Your task to perform on an android device: find which apps use the phone's location Image 0: 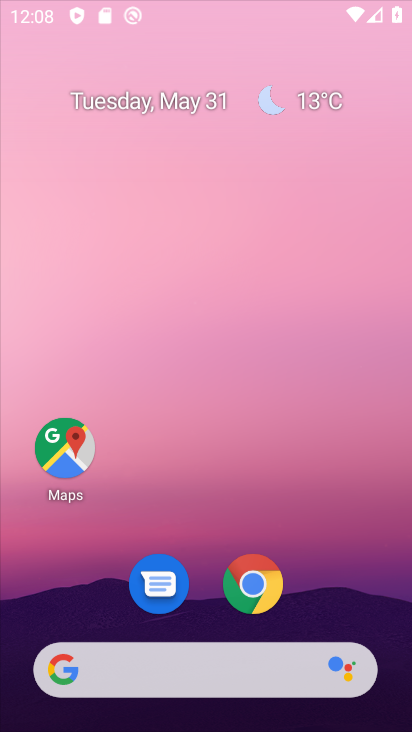
Step 0: click (213, 0)
Your task to perform on an android device: find which apps use the phone's location Image 1: 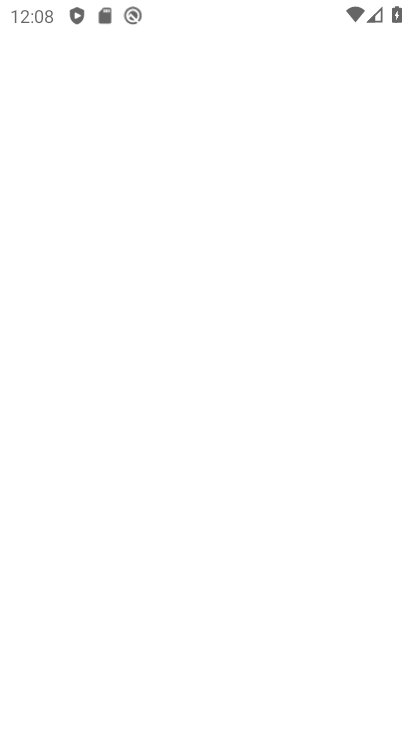
Step 1: press home button
Your task to perform on an android device: find which apps use the phone's location Image 2: 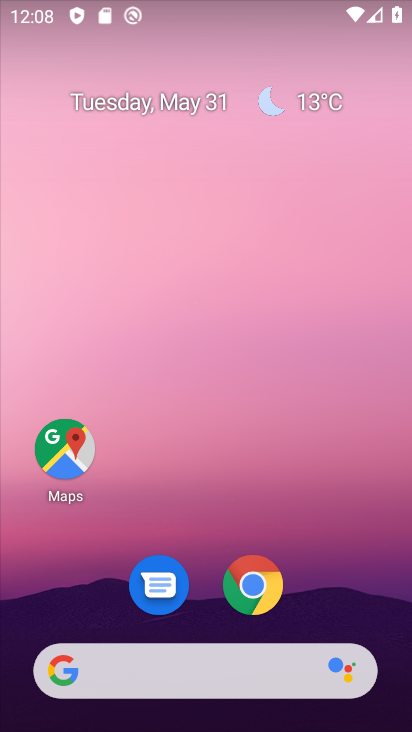
Step 2: drag from (210, 529) to (203, 24)
Your task to perform on an android device: find which apps use the phone's location Image 3: 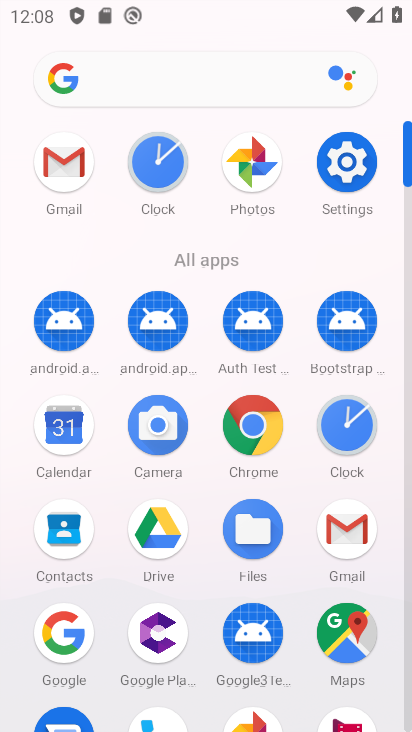
Step 3: click (348, 165)
Your task to perform on an android device: find which apps use the phone's location Image 4: 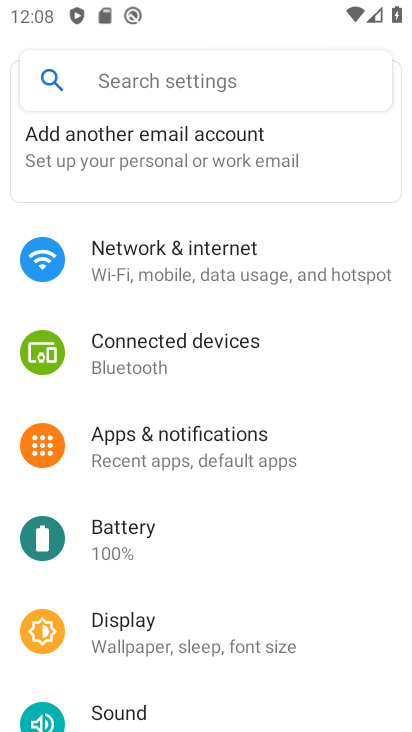
Step 4: drag from (229, 546) to (253, 147)
Your task to perform on an android device: find which apps use the phone's location Image 5: 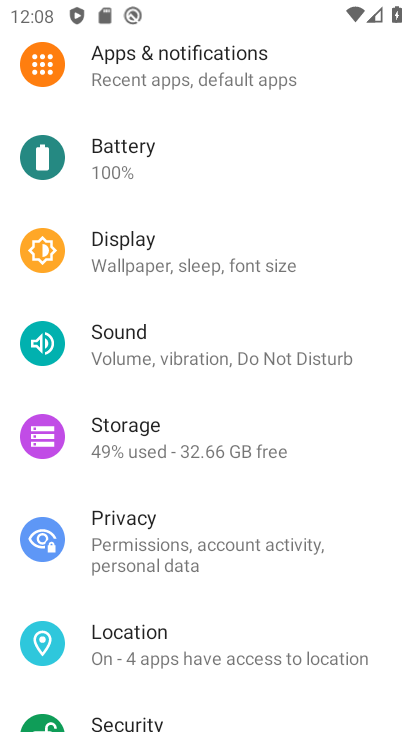
Step 5: click (207, 650)
Your task to perform on an android device: find which apps use the phone's location Image 6: 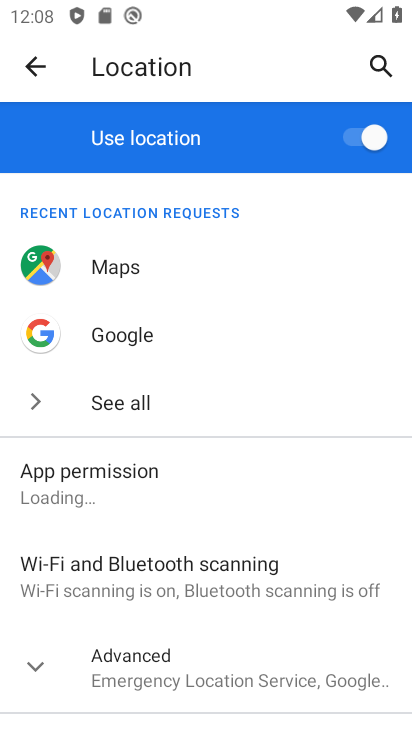
Step 6: drag from (229, 497) to (256, 213)
Your task to perform on an android device: find which apps use the phone's location Image 7: 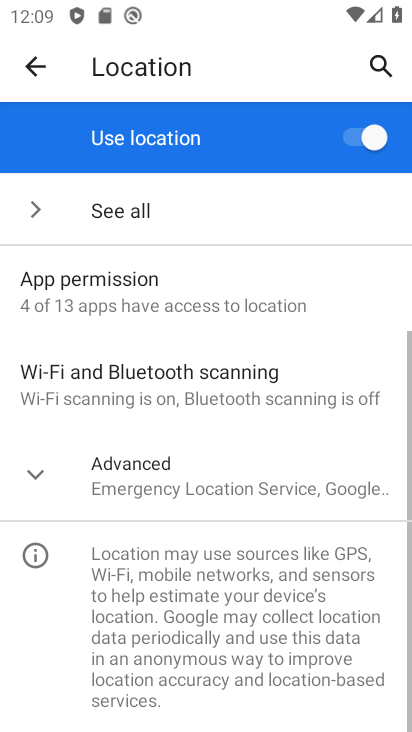
Step 7: drag from (200, 270) to (226, 652)
Your task to perform on an android device: find which apps use the phone's location Image 8: 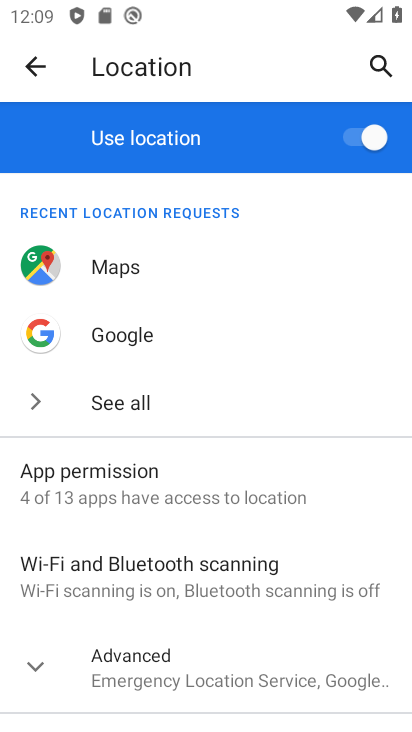
Step 8: click (131, 479)
Your task to perform on an android device: find which apps use the phone's location Image 9: 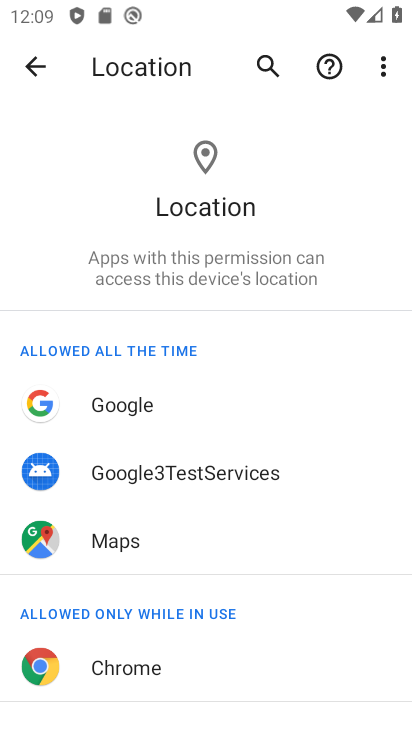
Step 9: task complete